Your task to perform on an android device: Open location settings Image 0: 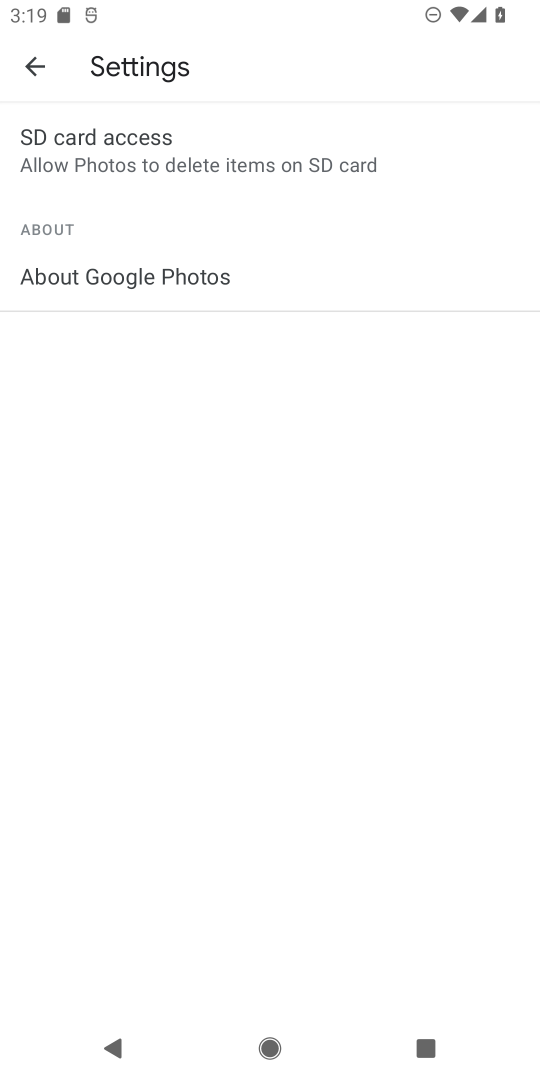
Step 0: press home button
Your task to perform on an android device: Open location settings Image 1: 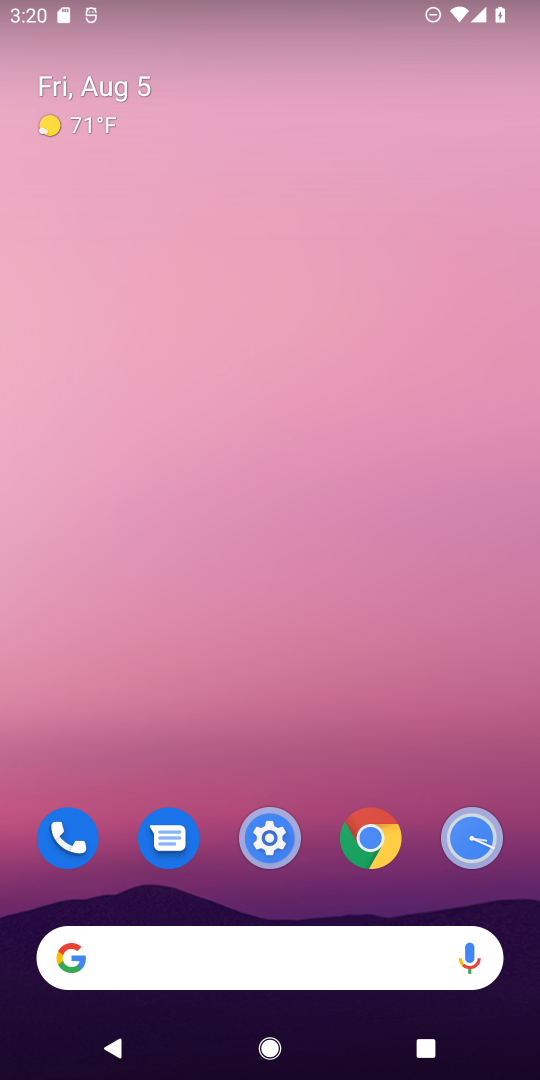
Step 1: click (414, 792)
Your task to perform on an android device: Open location settings Image 2: 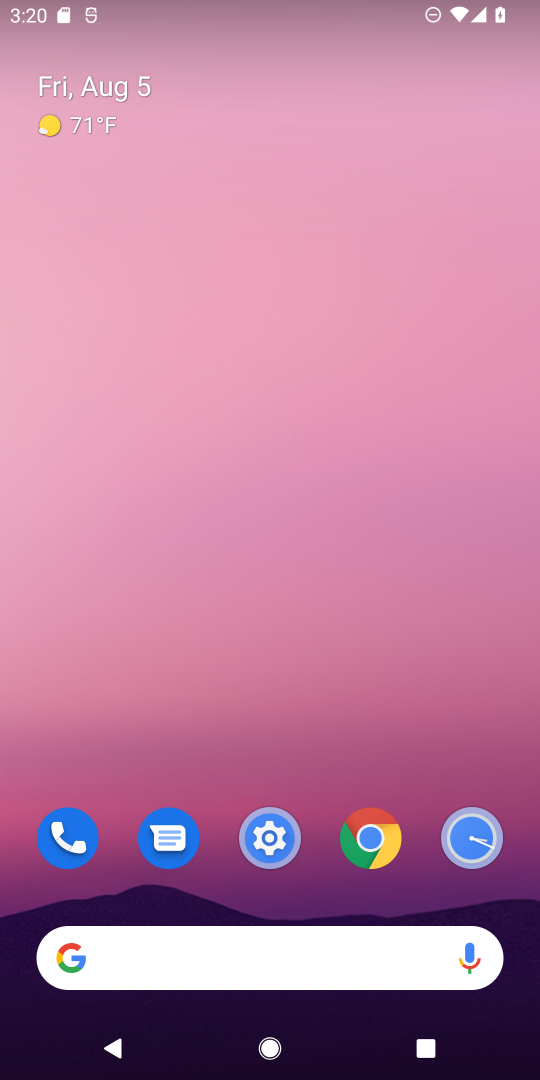
Step 2: click (284, 848)
Your task to perform on an android device: Open location settings Image 3: 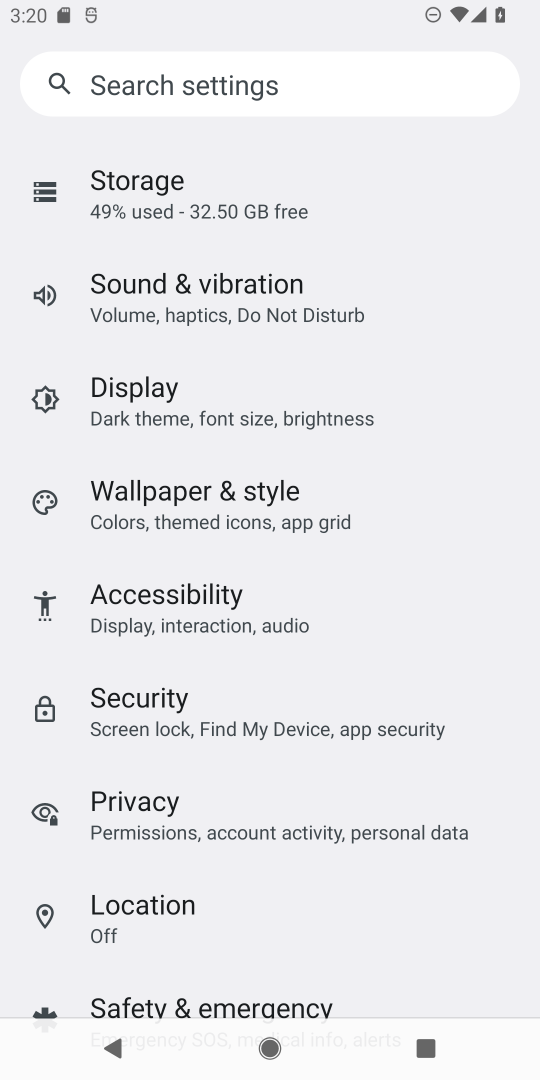
Step 3: click (342, 917)
Your task to perform on an android device: Open location settings Image 4: 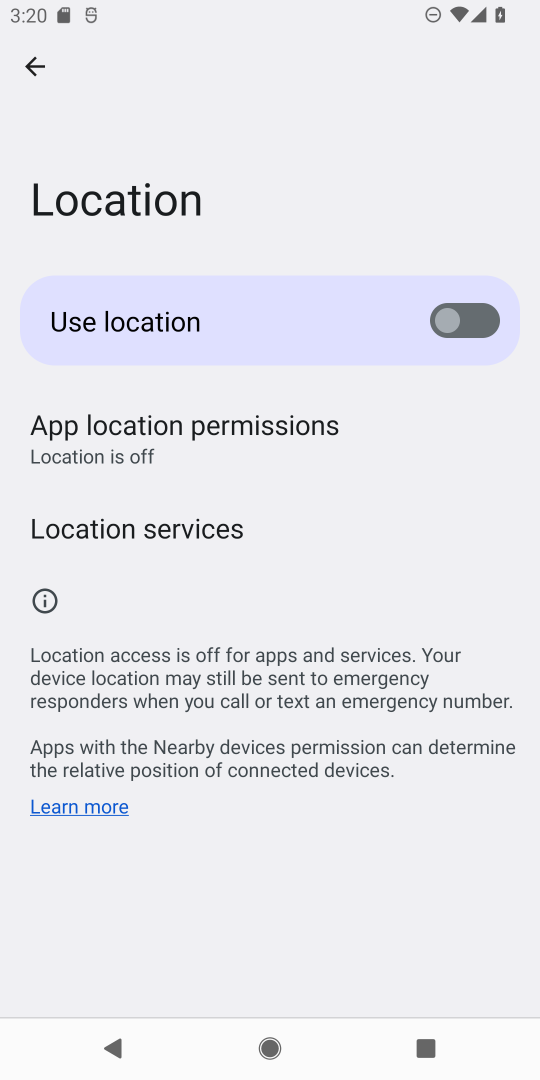
Step 4: task complete